Your task to perform on an android device: open sync settings in chrome Image 0: 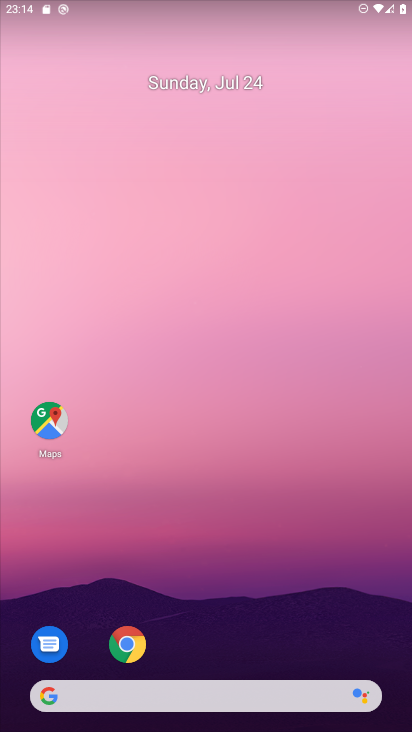
Step 0: click (127, 641)
Your task to perform on an android device: open sync settings in chrome Image 1: 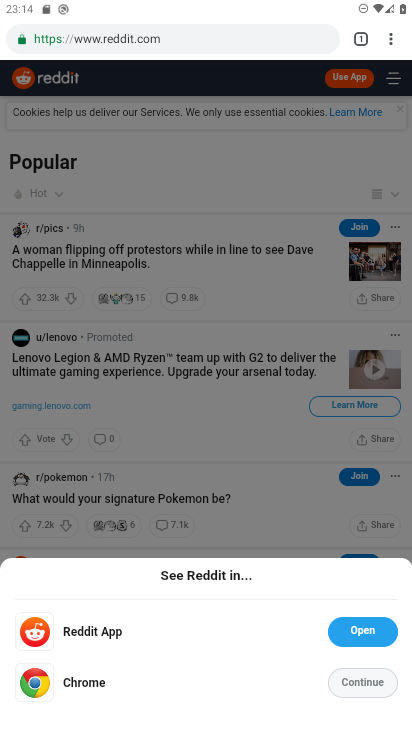
Step 1: click (388, 40)
Your task to perform on an android device: open sync settings in chrome Image 2: 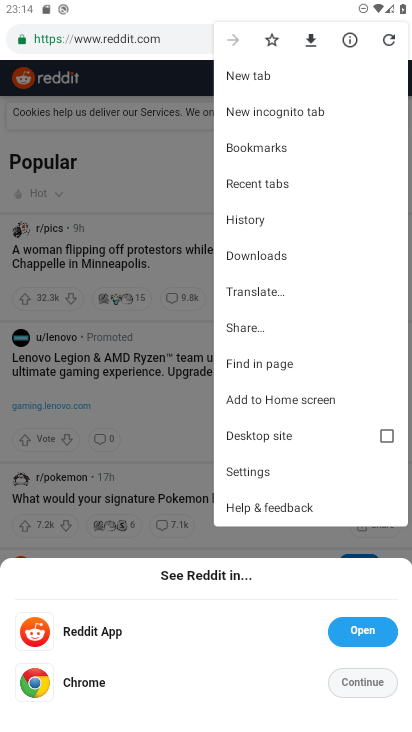
Step 2: click (252, 469)
Your task to perform on an android device: open sync settings in chrome Image 3: 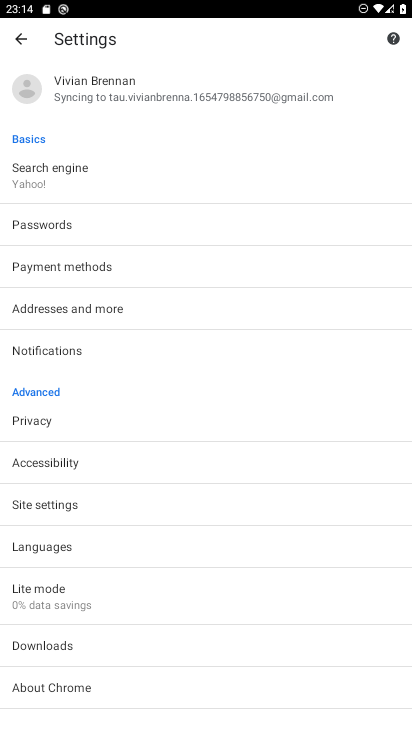
Step 3: click (93, 93)
Your task to perform on an android device: open sync settings in chrome Image 4: 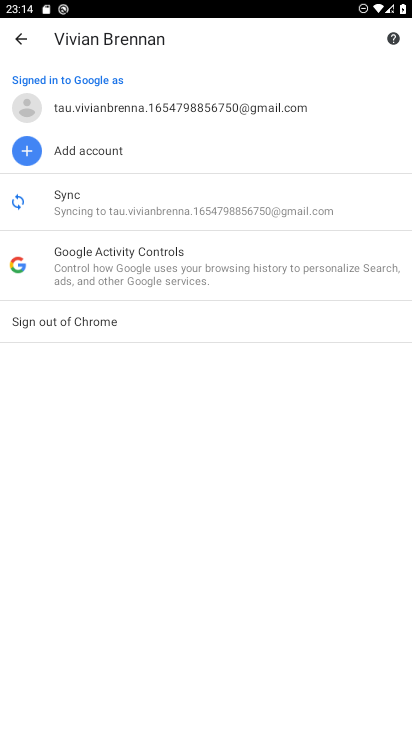
Step 4: click (65, 202)
Your task to perform on an android device: open sync settings in chrome Image 5: 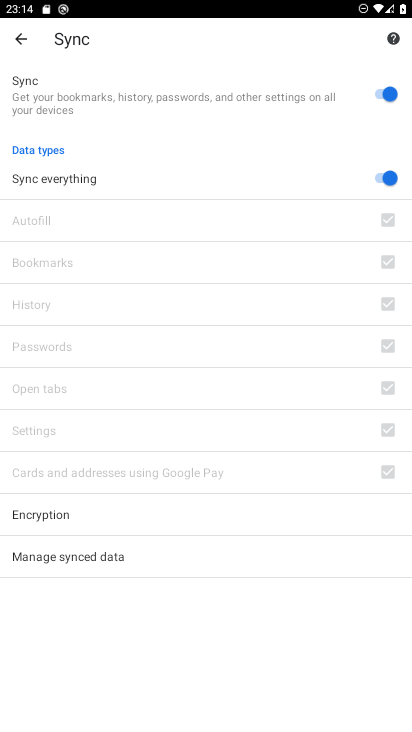
Step 5: task complete